Your task to perform on an android device: Go to Yahoo.com Image 0: 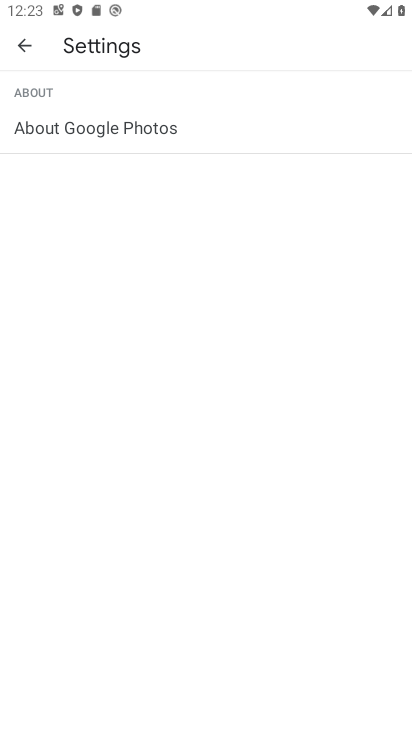
Step 0: press home button
Your task to perform on an android device: Go to Yahoo.com Image 1: 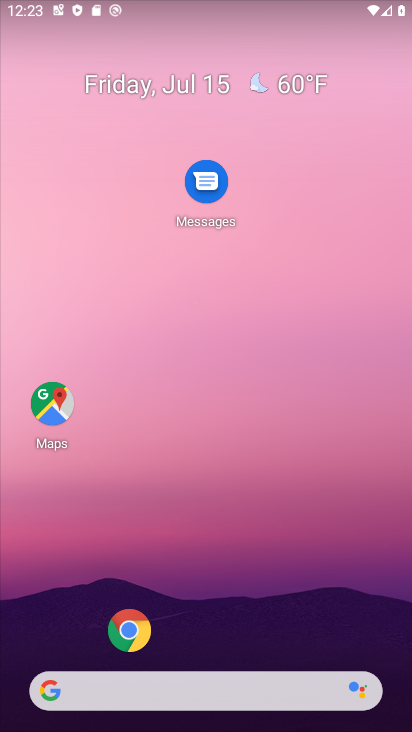
Step 1: click (116, 698)
Your task to perform on an android device: Go to Yahoo.com Image 2: 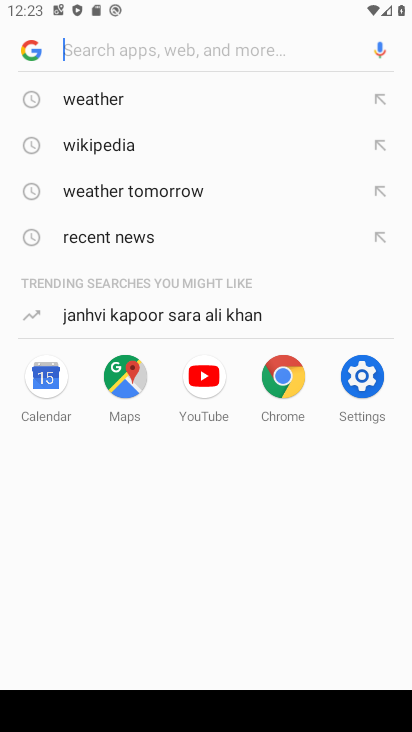
Step 2: type "Yahoo.com"
Your task to perform on an android device: Go to Yahoo.com Image 3: 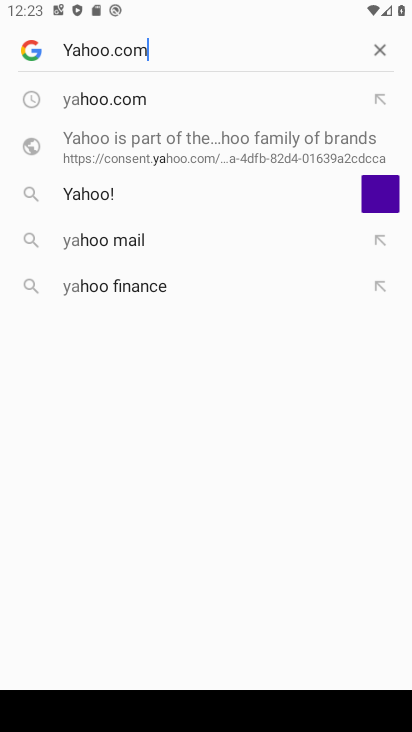
Step 3: type ""
Your task to perform on an android device: Go to Yahoo.com Image 4: 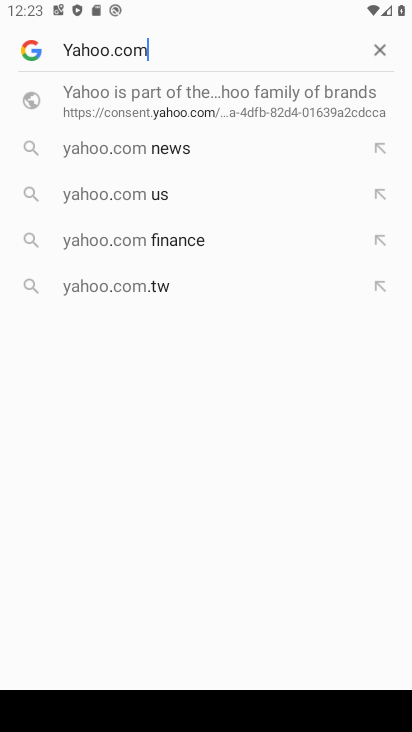
Step 4: type ""
Your task to perform on an android device: Go to Yahoo.com Image 5: 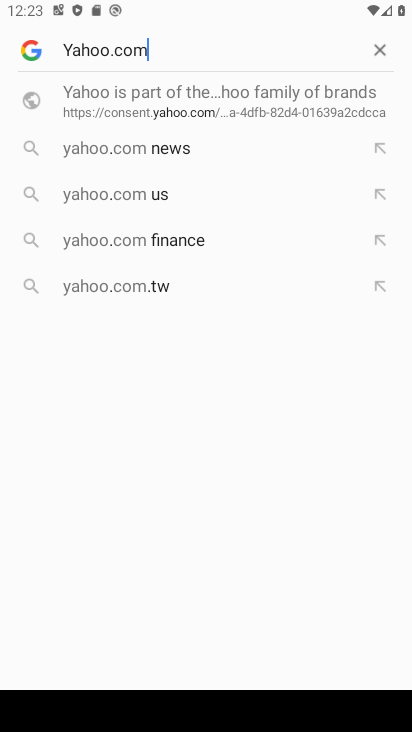
Step 5: type ""
Your task to perform on an android device: Go to Yahoo.com Image 6: 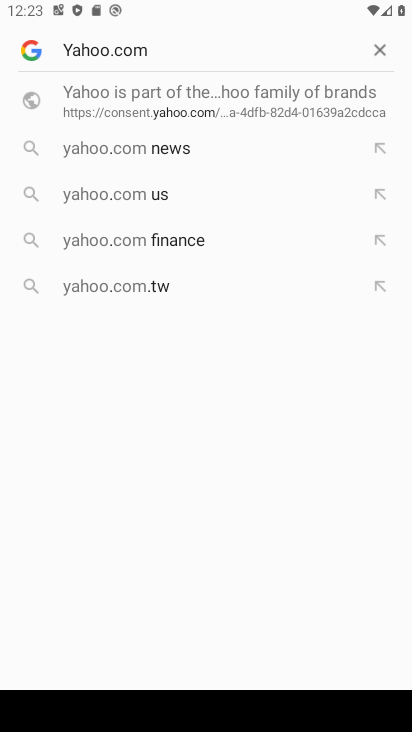
Step 6: task complete